Your task to perform on an android device: toggle translation in the chrome app Image 0: 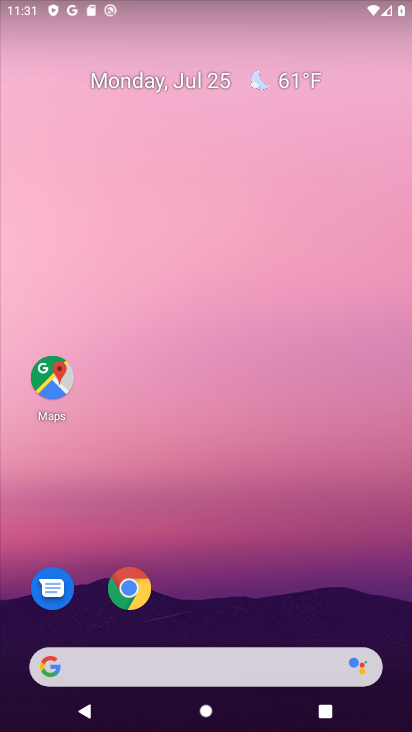
Step 0: press home button
Your task to perform on an android device: toggle translation in the chrome app Image 1: 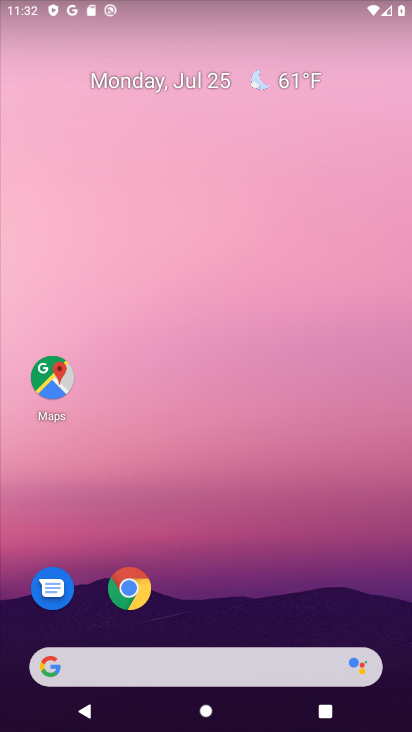
Step 1: click (122, 581)
Your task to perform on an android device: toggle translation in the chrome app Image 2: 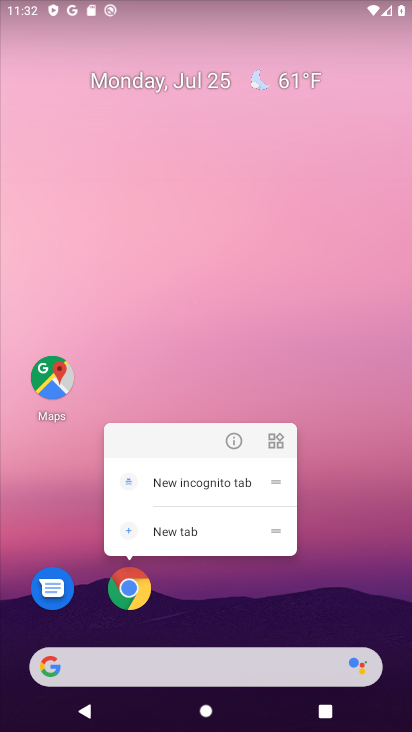
Step 2: click (125, 582)
Your task to perform on an android device: toggle translation in the chrome app Image 3: 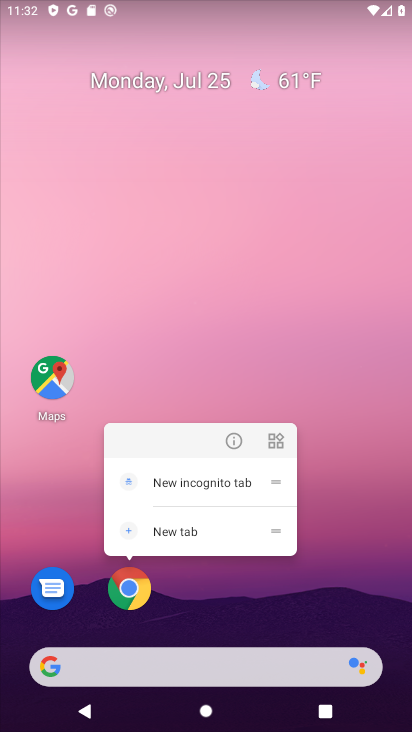
Step 3: click (125, 582)
Your task to perform on an android device: toggle translation in the chrome app Image 4: 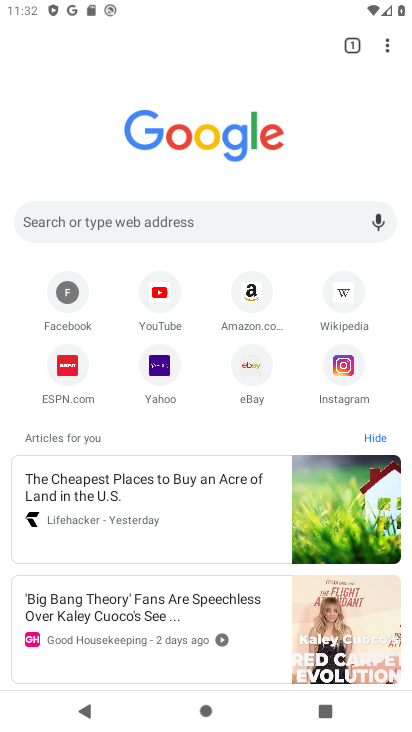
Step 4: click (389, 44)
Your task to perform on an android device: toggle translation in the chrome app Image 5: 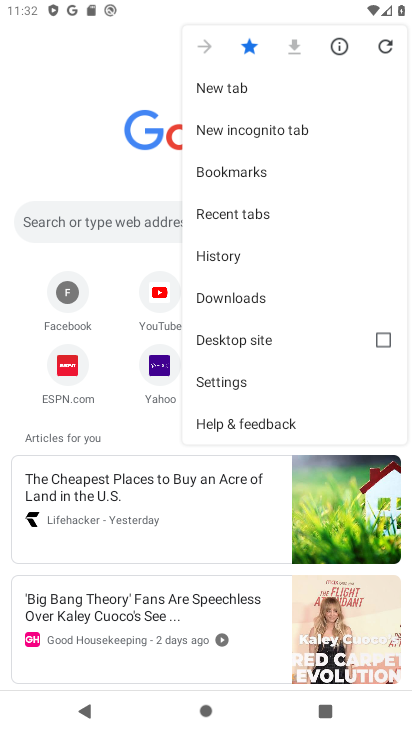
Step 5: click (257, 378)
Your task to perform on an android device: toggle translation in the chrome app Image 6: 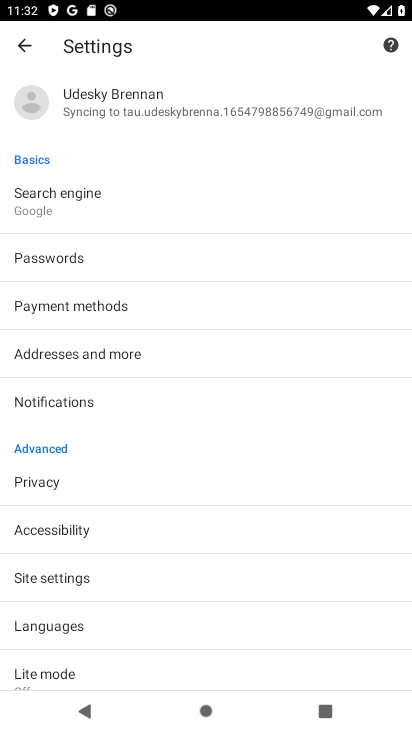
Step 6: click (99, 627)
Your task to perform on an android device: toggle translation in the chrome app Image 7: 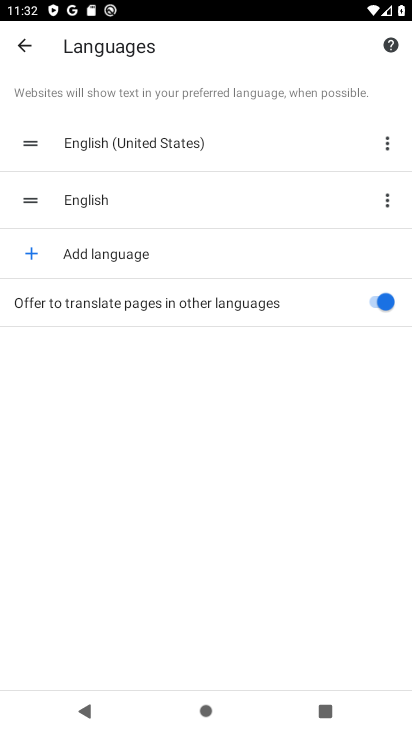
Step 7: click (376, 299)
Your task to perform on an android device: toggle translation in the chrome app Image 8: 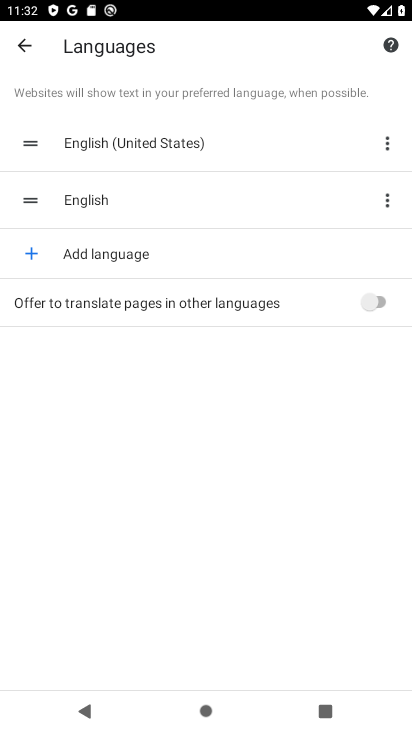
Step 8: task complete